Your task to perform on an android device: Open Maps and search for coffee Image 0: 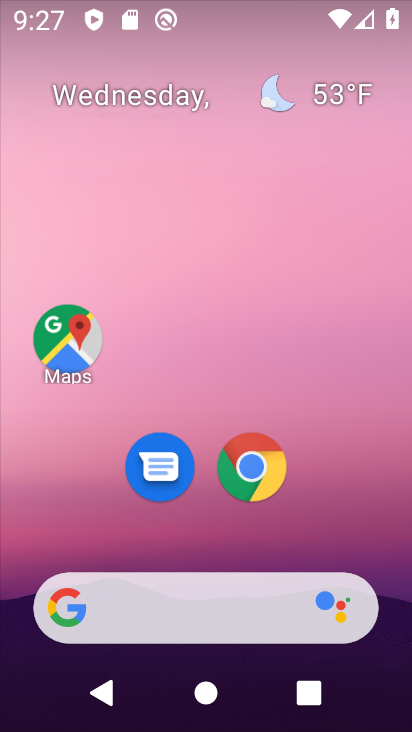
Step 0: press home button
Your task to perform on an android device: Open Maps and search for coffee Image 1: 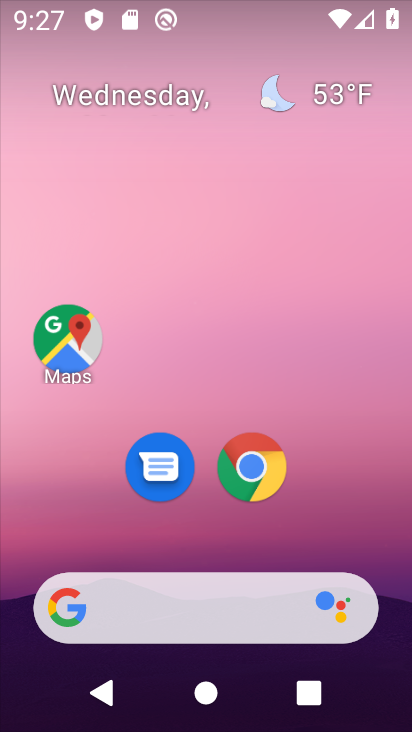
Step 1: click (49, 327)
Your task to perform on an android device: Open Maps and search for coffee Image 2: 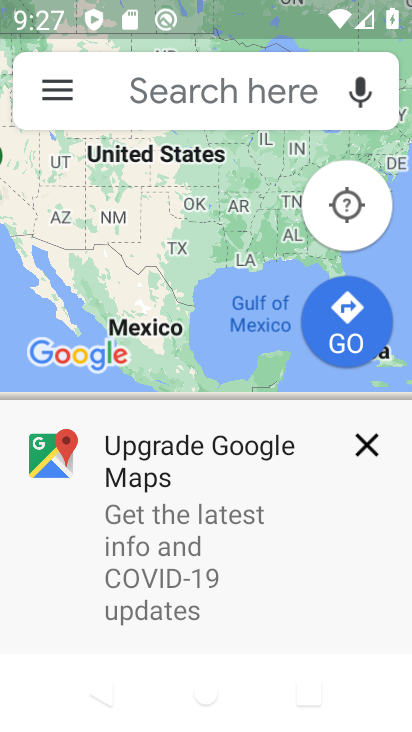
Step 2: click (172, 93)
Your task to perform on an android device: Open Maps and search for coffee Image 3: 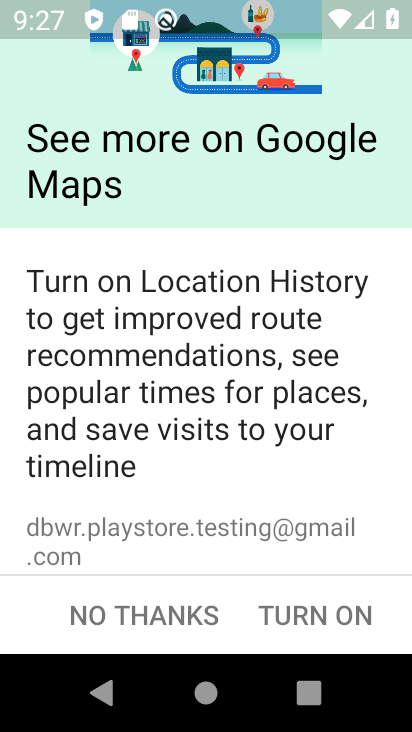
Step 3: click (141, 622)
Your task to perform on an android device: Open Maps and search for coffee Image 4: 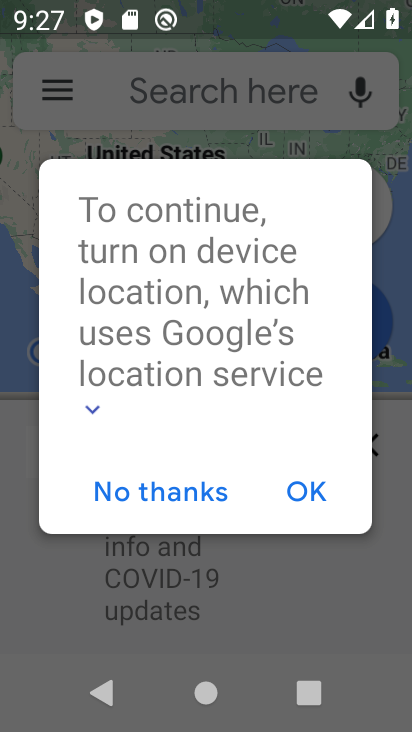
Step 4: click (156, 503)
Your task to perform on an android device: Open Maps and search for coffee Image 5: 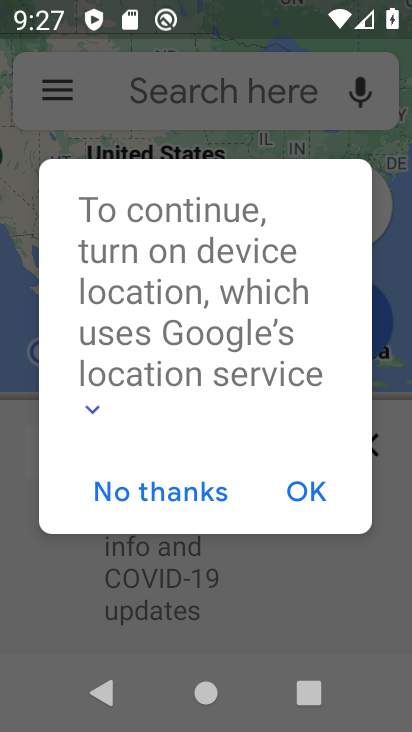
Step 5: click (159, 493)
Your task to perform on an android device: Open Maps and search for coffee Image 6: 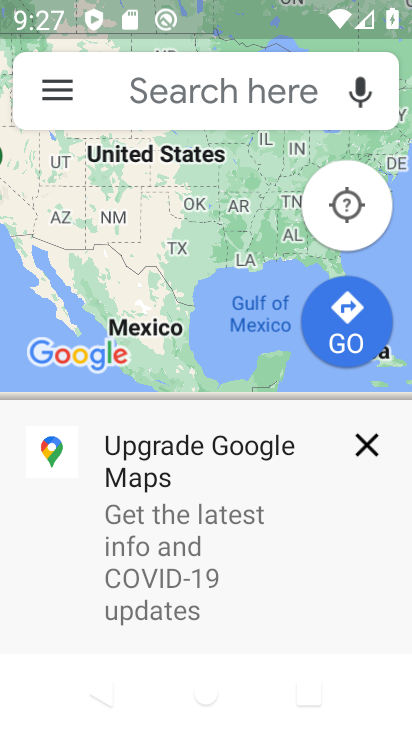
Step 6: click (185, 104)
Your task to perform on an android device: Open Maps and search for coffee Image 7: 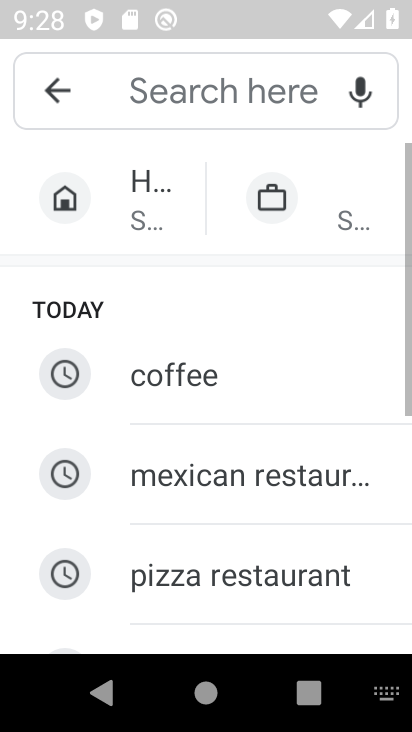
Step 7: click (185, 104)
Your task to perform on an android device: Open Maps and search for coffee Image 8: 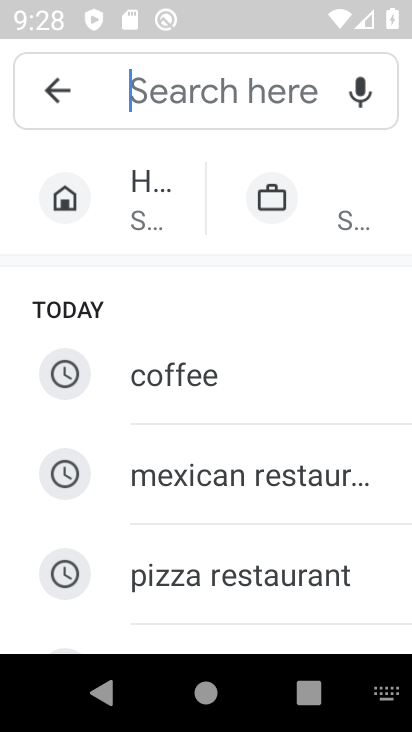
Step 8: type "coffee"
Your task to perform on an android device: Open Maps and search for coffee Image 9: 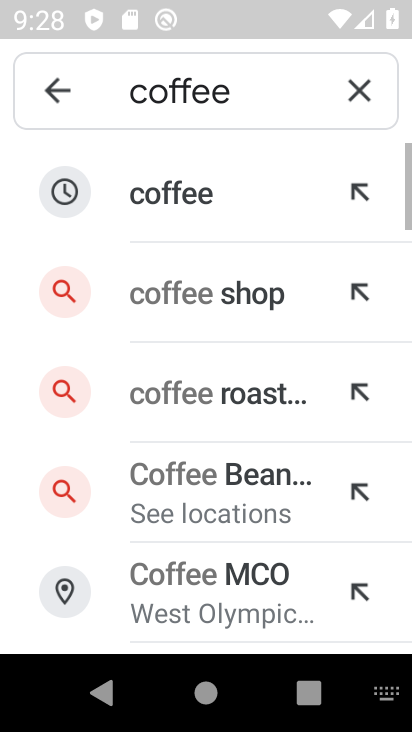
Step 9: click (128, 192)
Your task to perform on an android device: Open Maps and search for coffee Image 10: 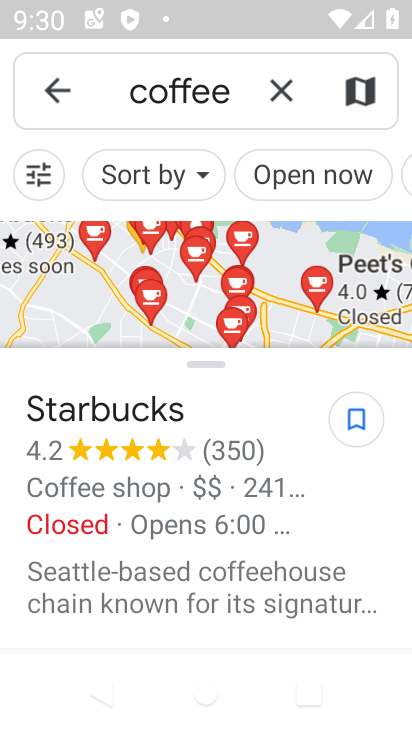
Step 10: task complete